Your task to perform on an android device: open app "Airtel Thanks" (install if not already installed) Image 0: 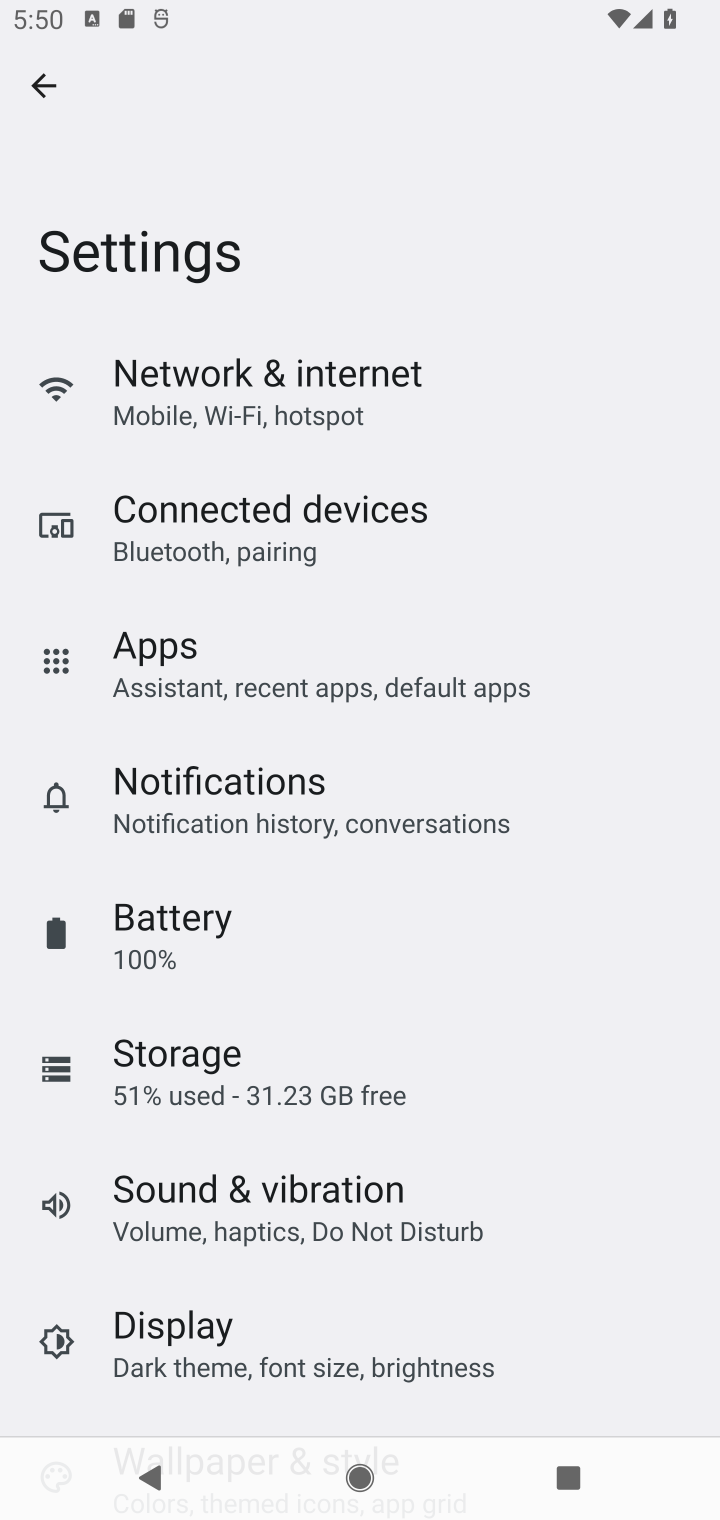
Step 0: press home button
Your task to perform on an android device: open app "Airtel Thanks" (install if not already installed) Image 1: 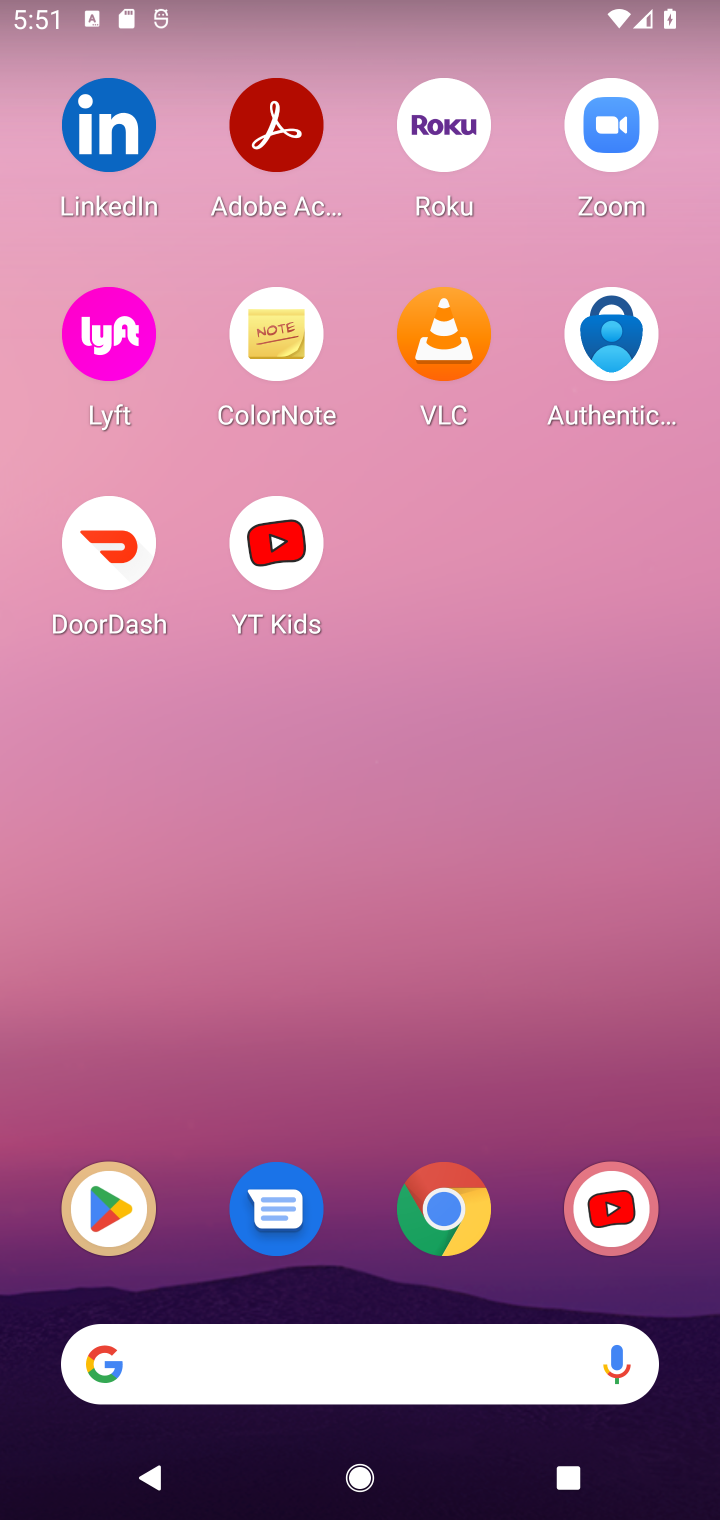
Step 1: click (98, 1209)
Your task to perform on an android device: open app "Airtel Thanks" (install if not already installed) Image 2: 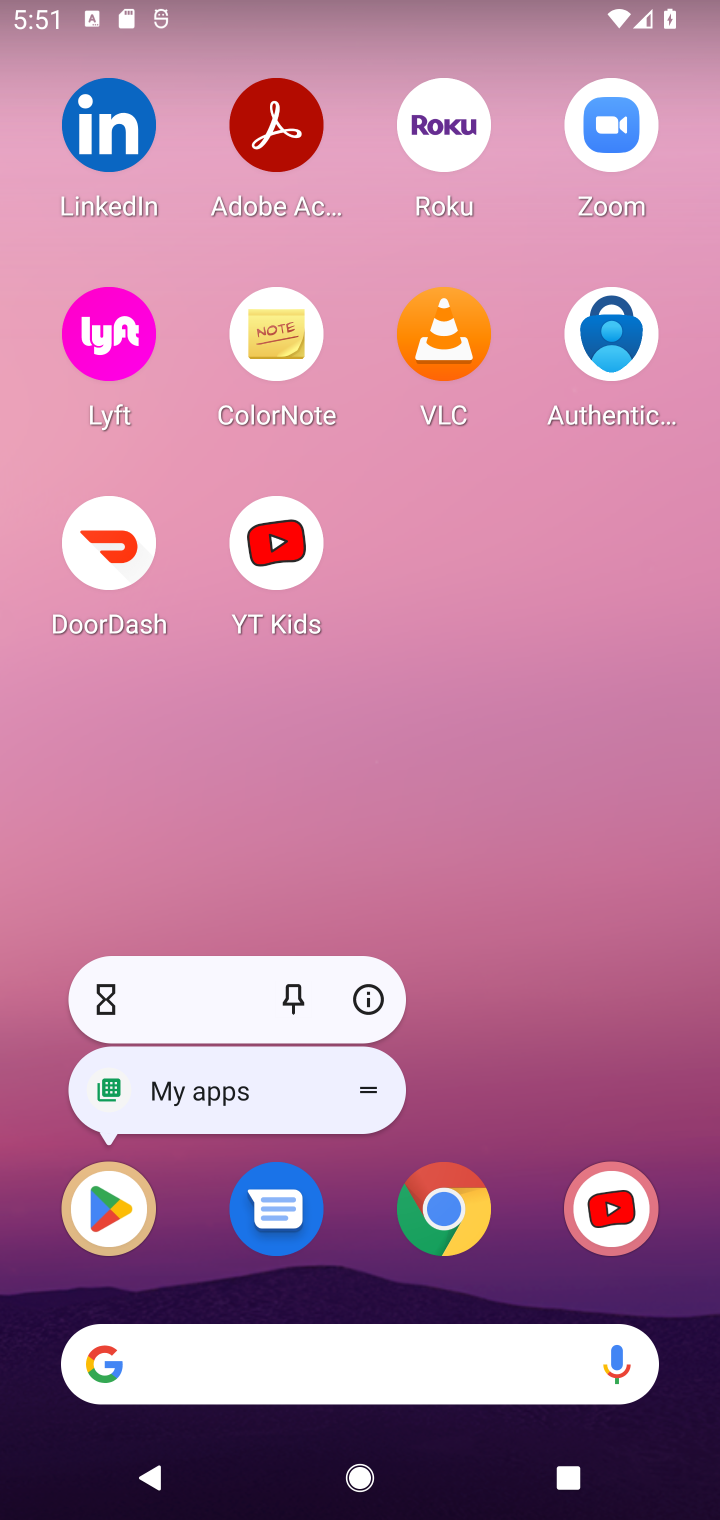
Step 2: click (98, 1209)
Your task to perform on an android device: open app "Airtel Thanks" (install if not already installed) Image 3: 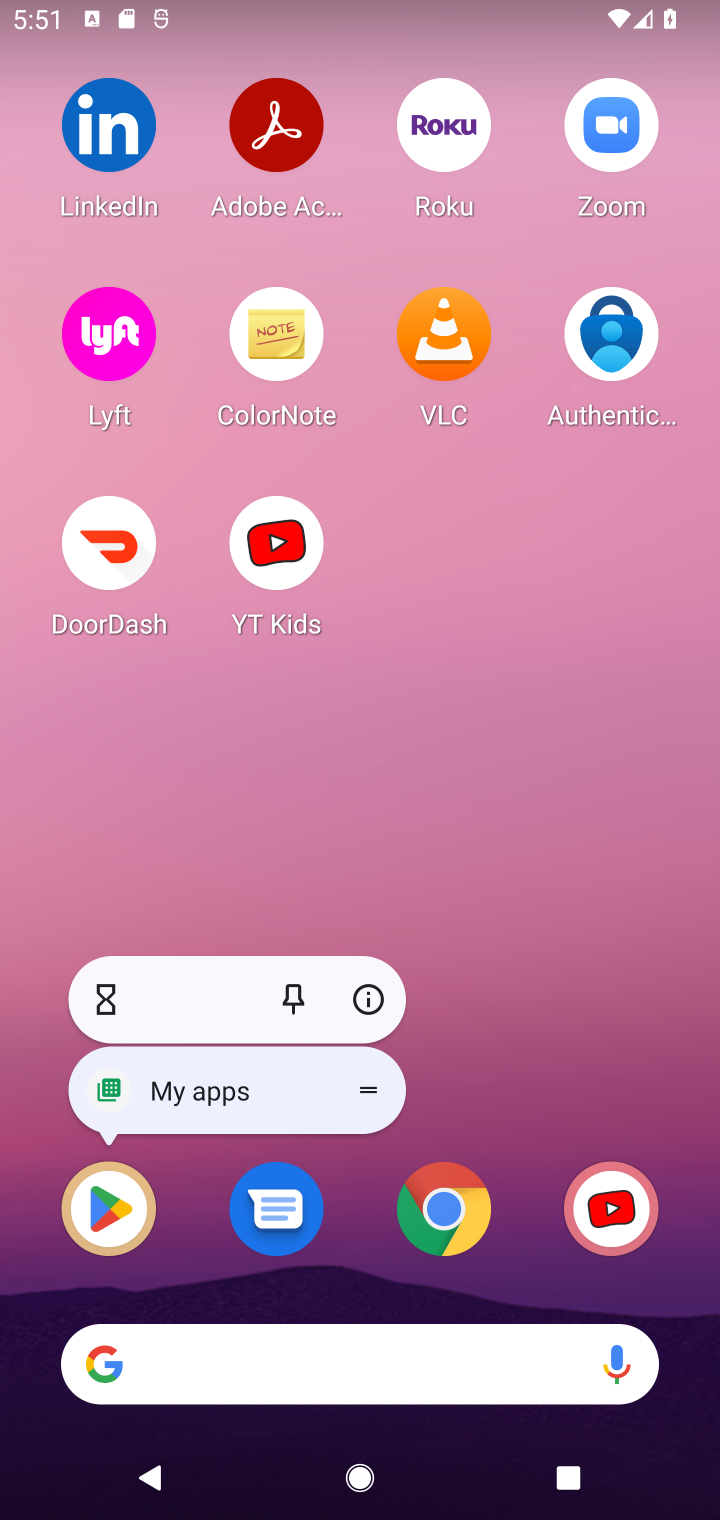
Step 3: click (111, 1212)
Your task to perform on an android device: open app "Airtel Thanks" (install if not already installed) Image 4: 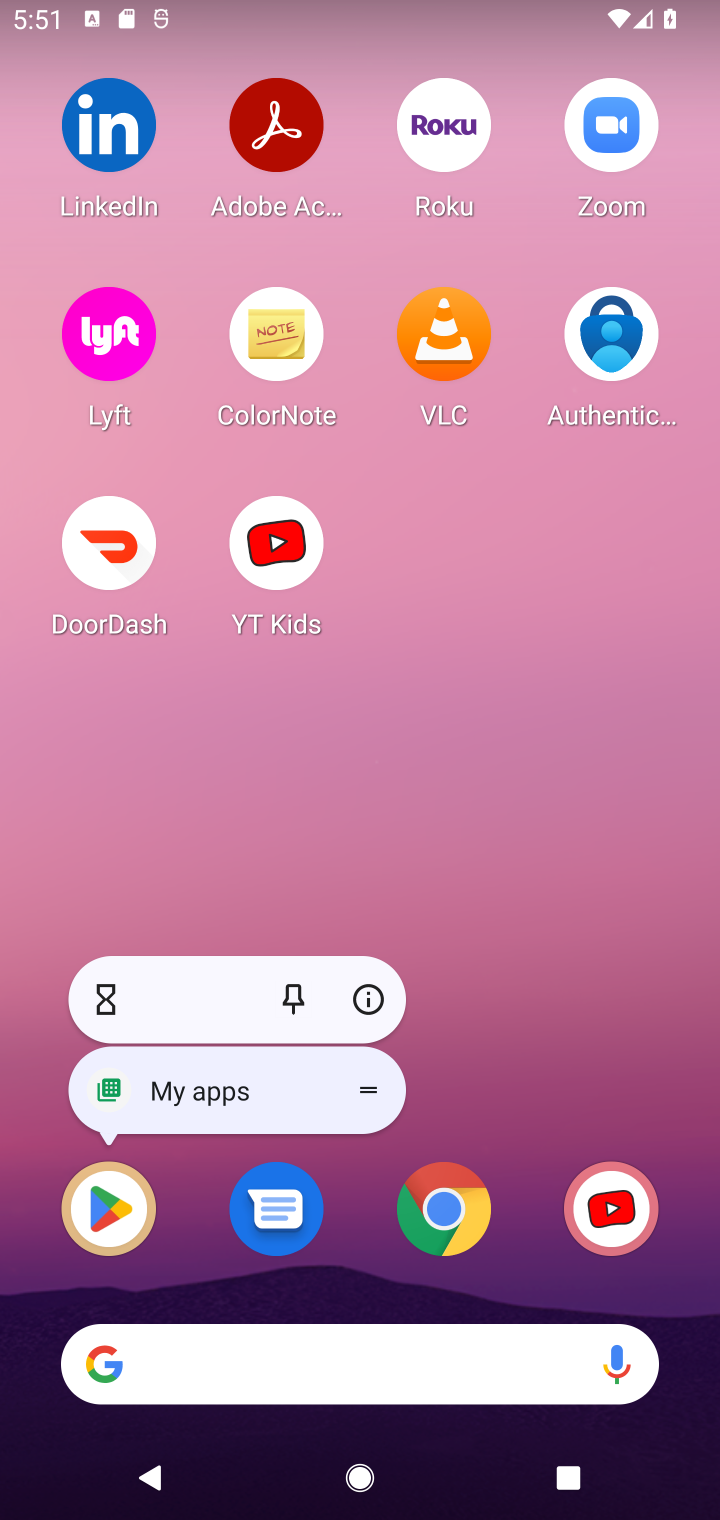
Step 4: click (111, 1212)
Your task to perform on an android device: open app "Airtel Thanks" (install if not already installed) Image 5: 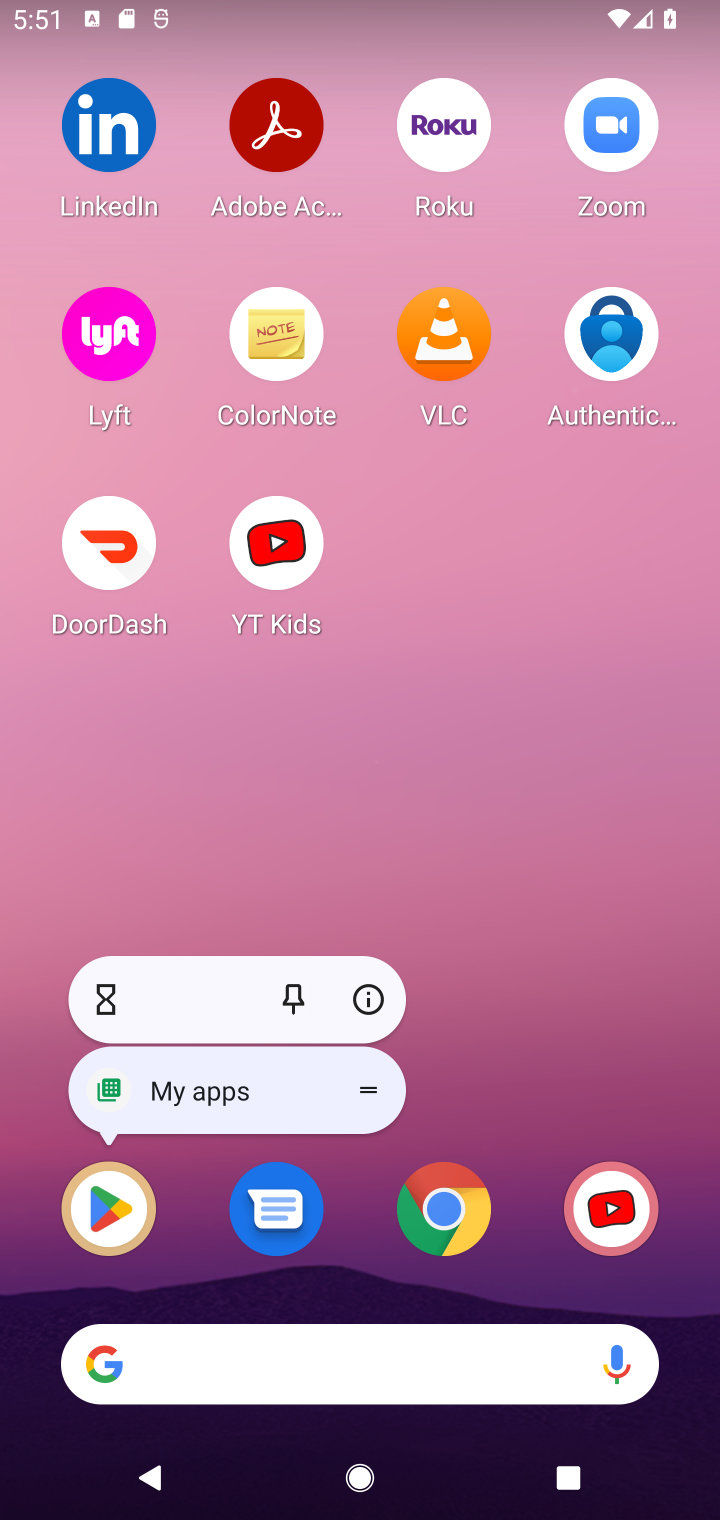
Step 5: click (111, 1212)
Your task to perform on an android device: open app "Airtel Thanks" (install if not already installed) Image 6: 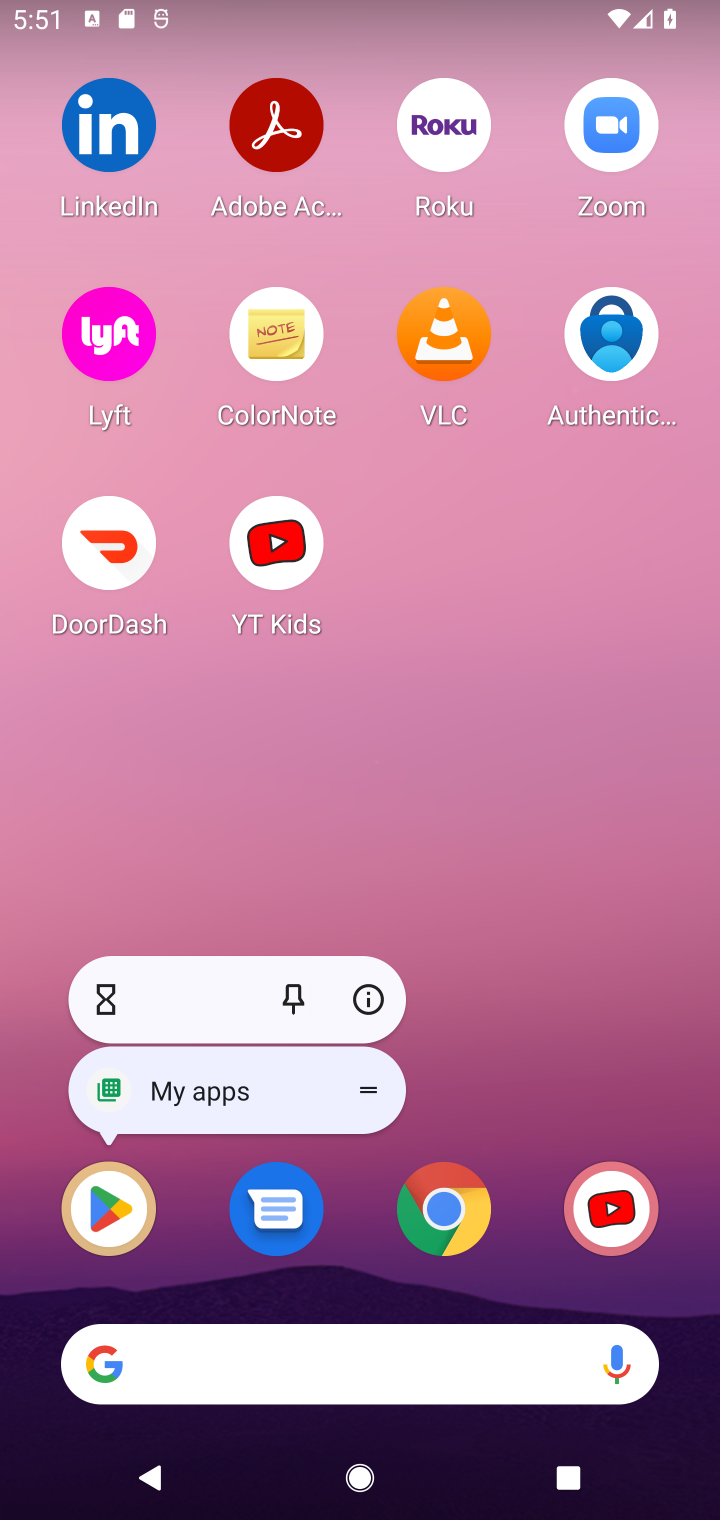
Step 6: click (105, 1231)
Your task to perform on an android device: open app "Airtel Thanks" (install if not already installed) Image 7: 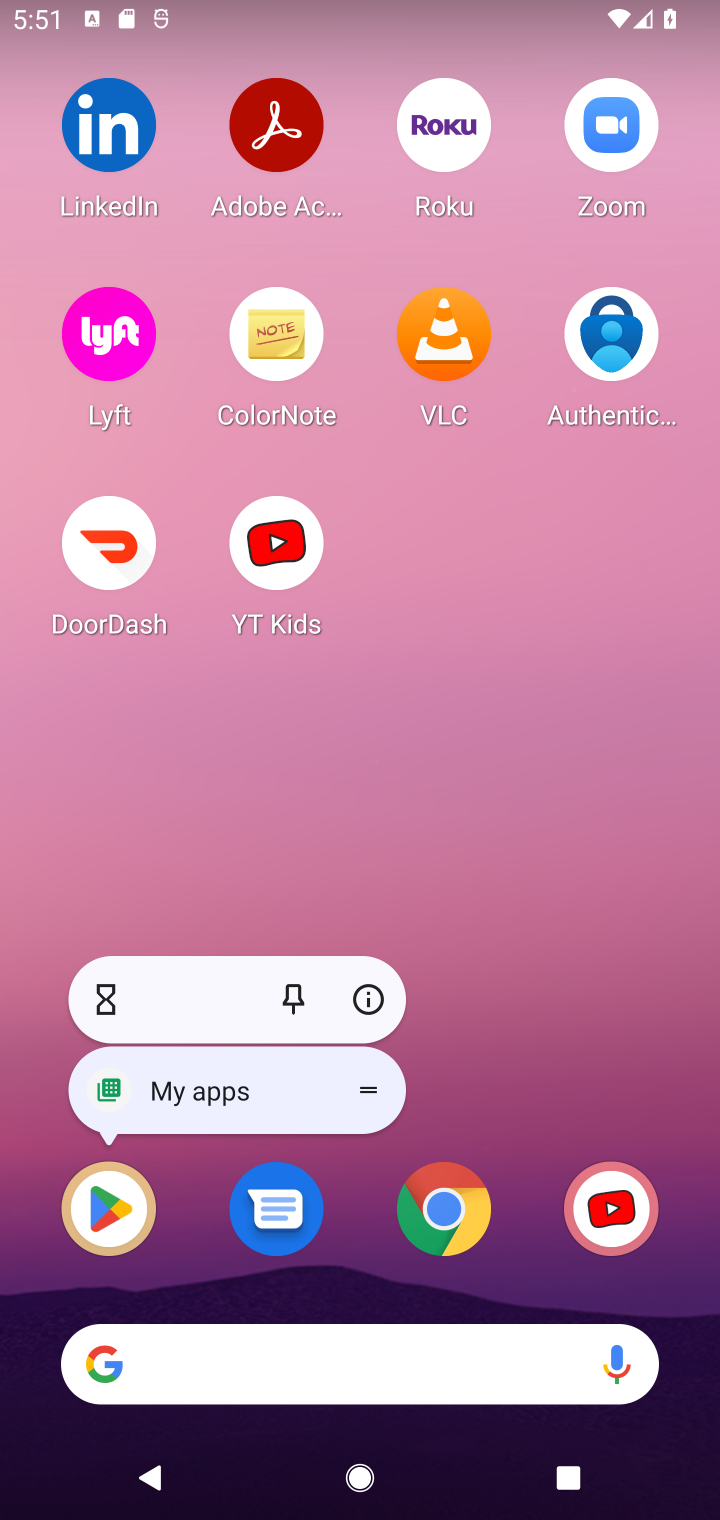
Step 7: click (105, 1231)
Your task to perform on an android device: open app "Airtel Thanks" (install if not already installed) Image 8: 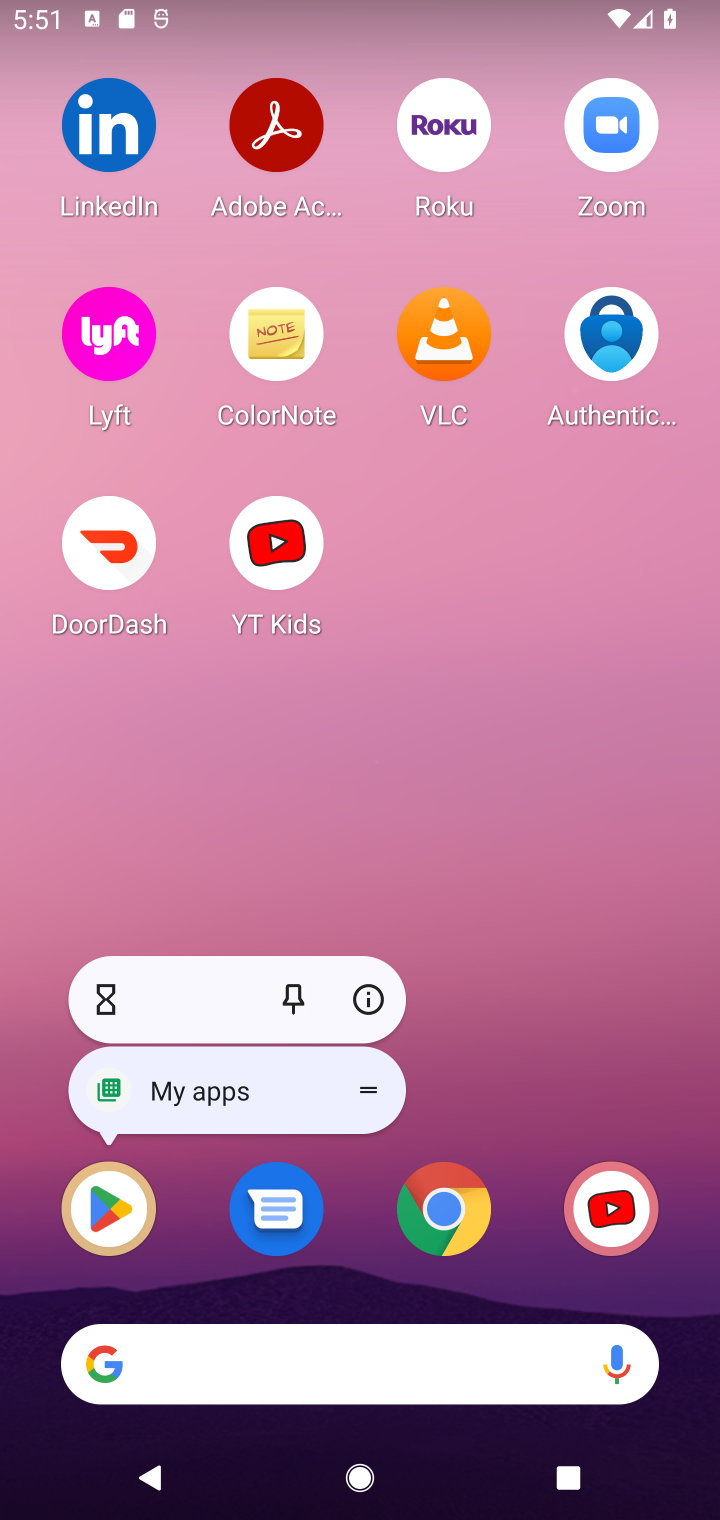
Step 8: click (105, 1231)
Your task to perform on an android device: open app "Airtel Thanks" (install if not already installed) Image 9: 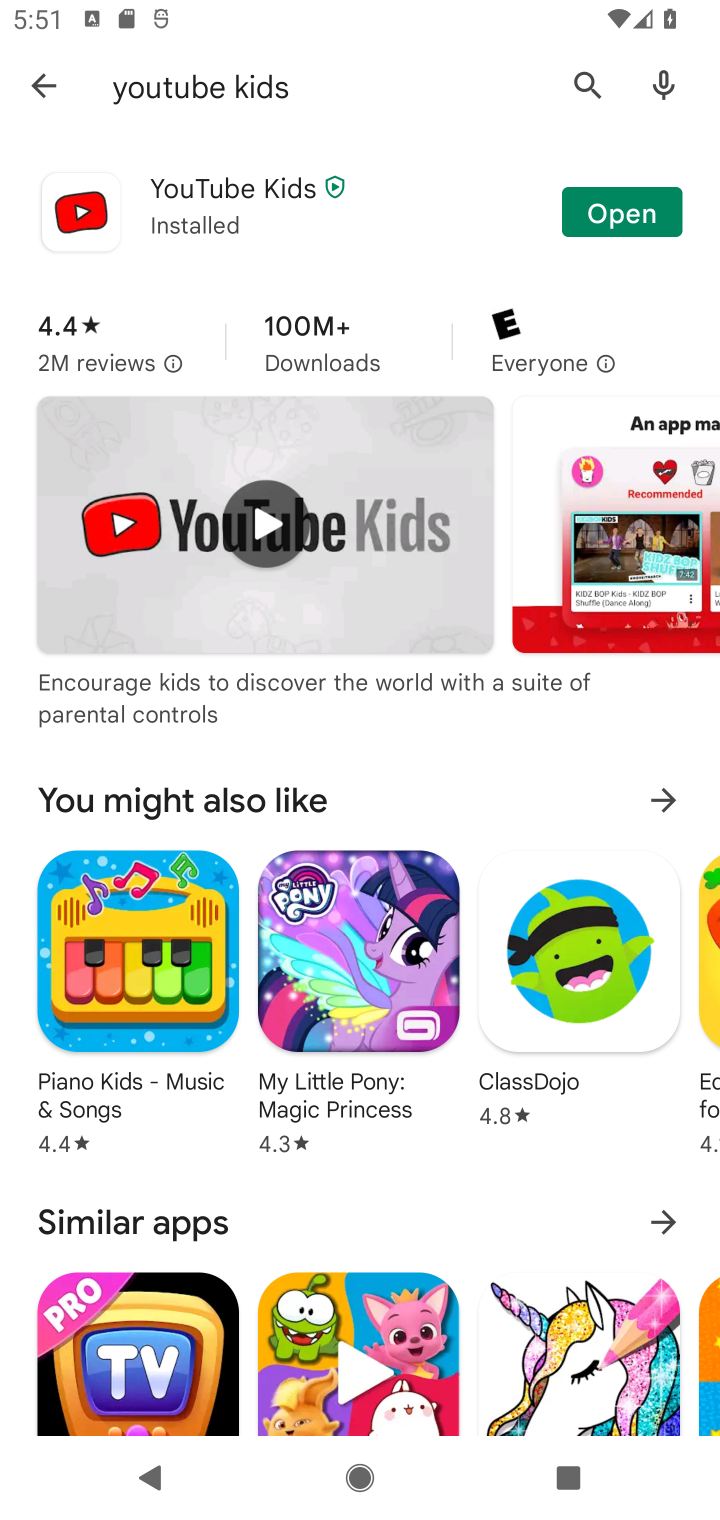
Step 9: click (598, 89)
Your task to perform on an android device: open app "Airtel Thanks" (install if not already installed) Image 10: 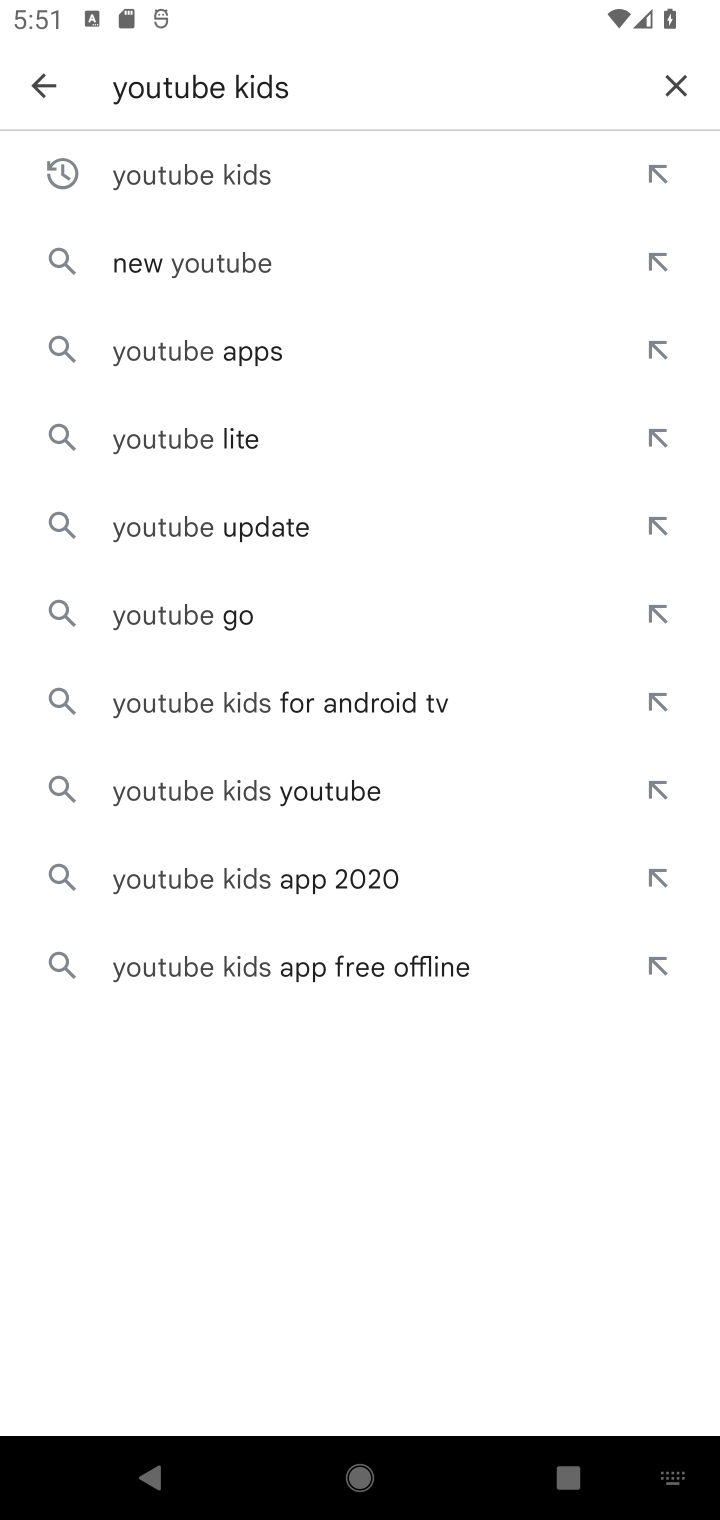
Step 10: click (678, 84)
Your task to perform on an android device: open app "Airtel Thanks" (install if not already installed) Image 11: 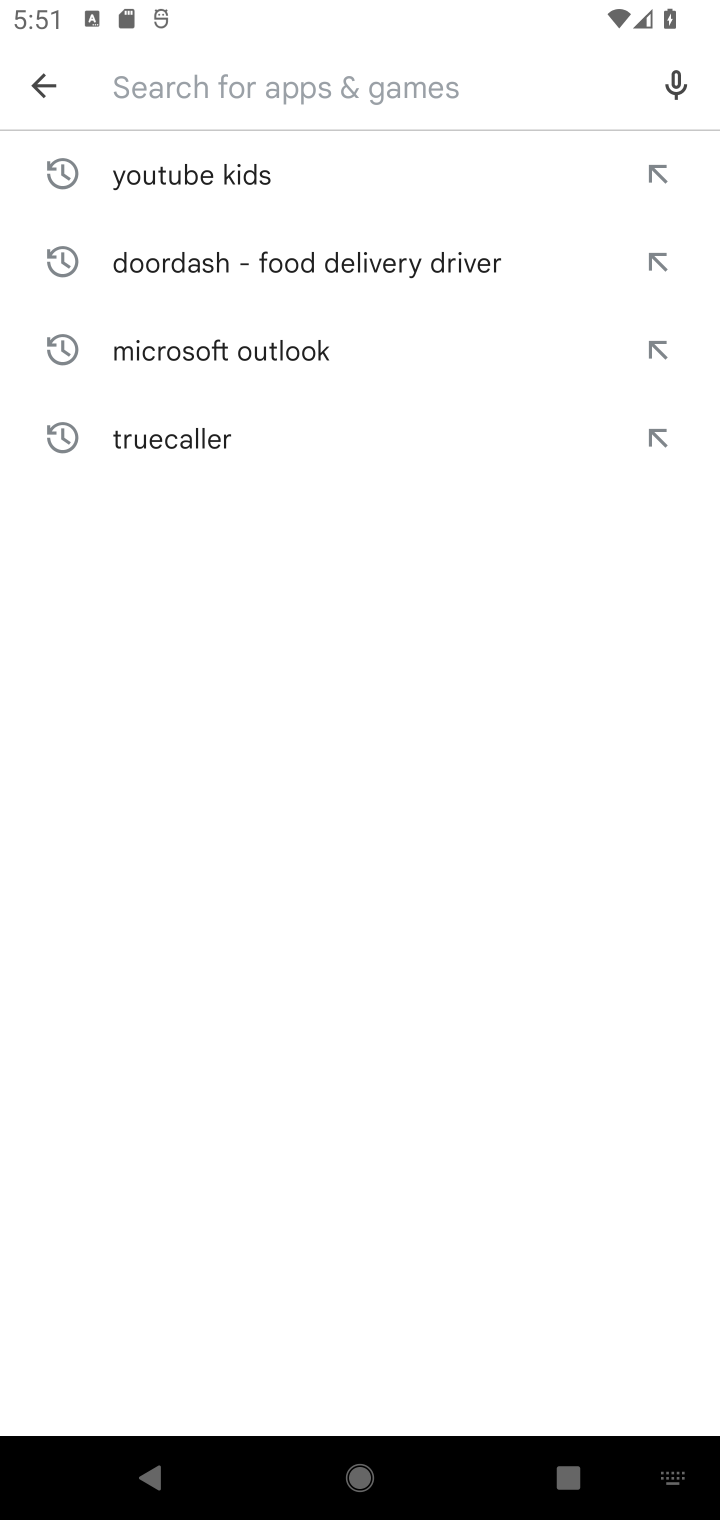
Step 11: type "Airtel Thanks"
Your task to perform on an android device: open app "Airtel Thanks" (install if not already installed) Image 12: 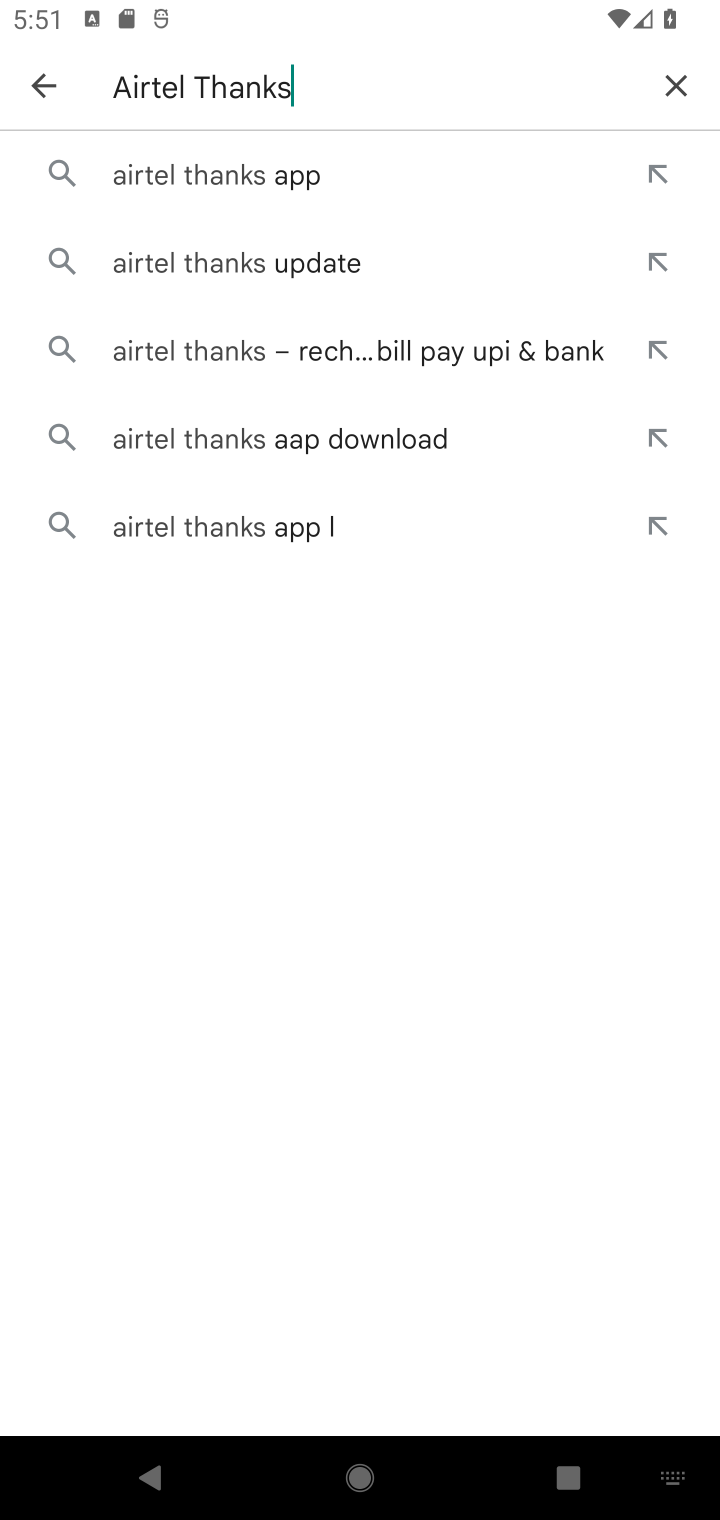
Step 12: click (206, 195)
Your task to perform on an android device: open app "Airtel Thanks" (install if not already installed) Image 13: 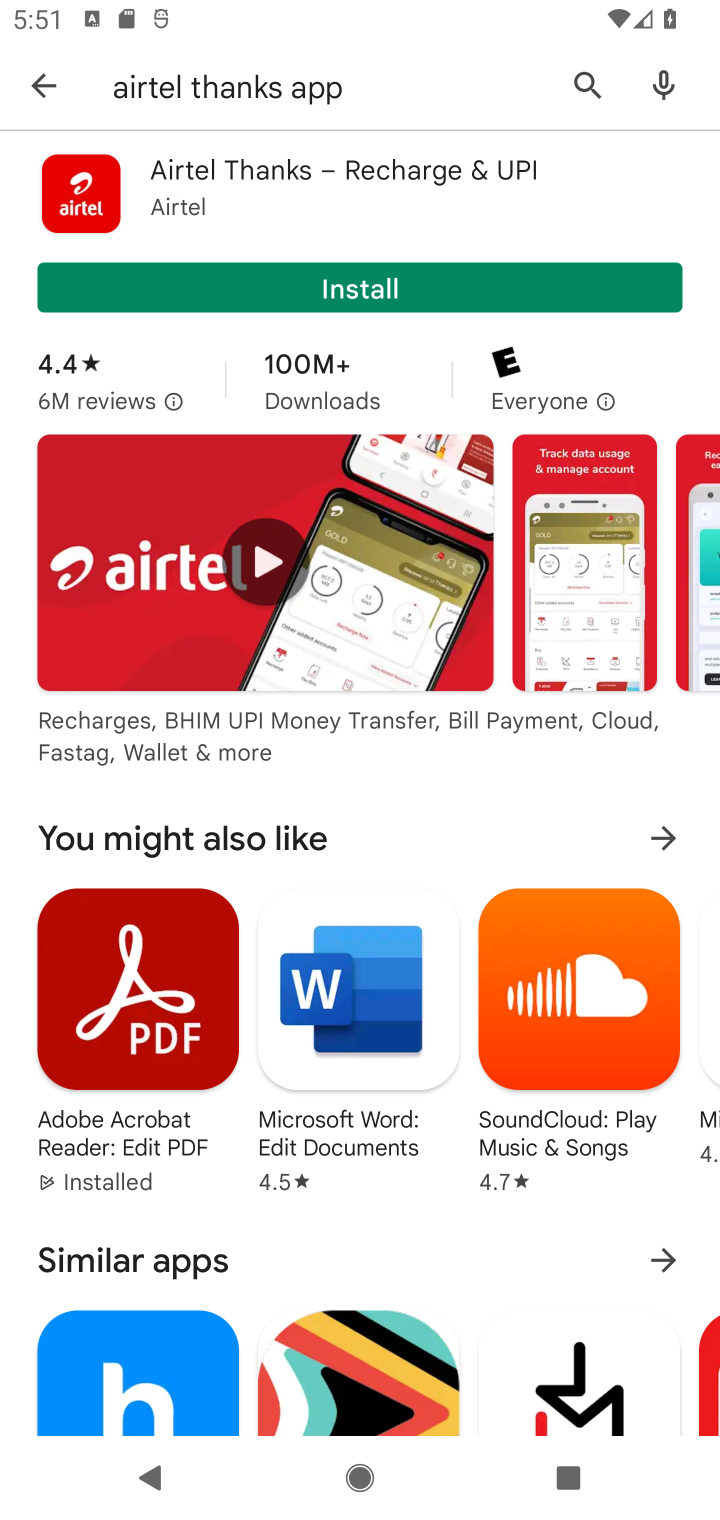
Step 13: click (313, 291)
Your task to perform on an android device: open app "Airtel Thanks" (install if not already installed) Image 14: 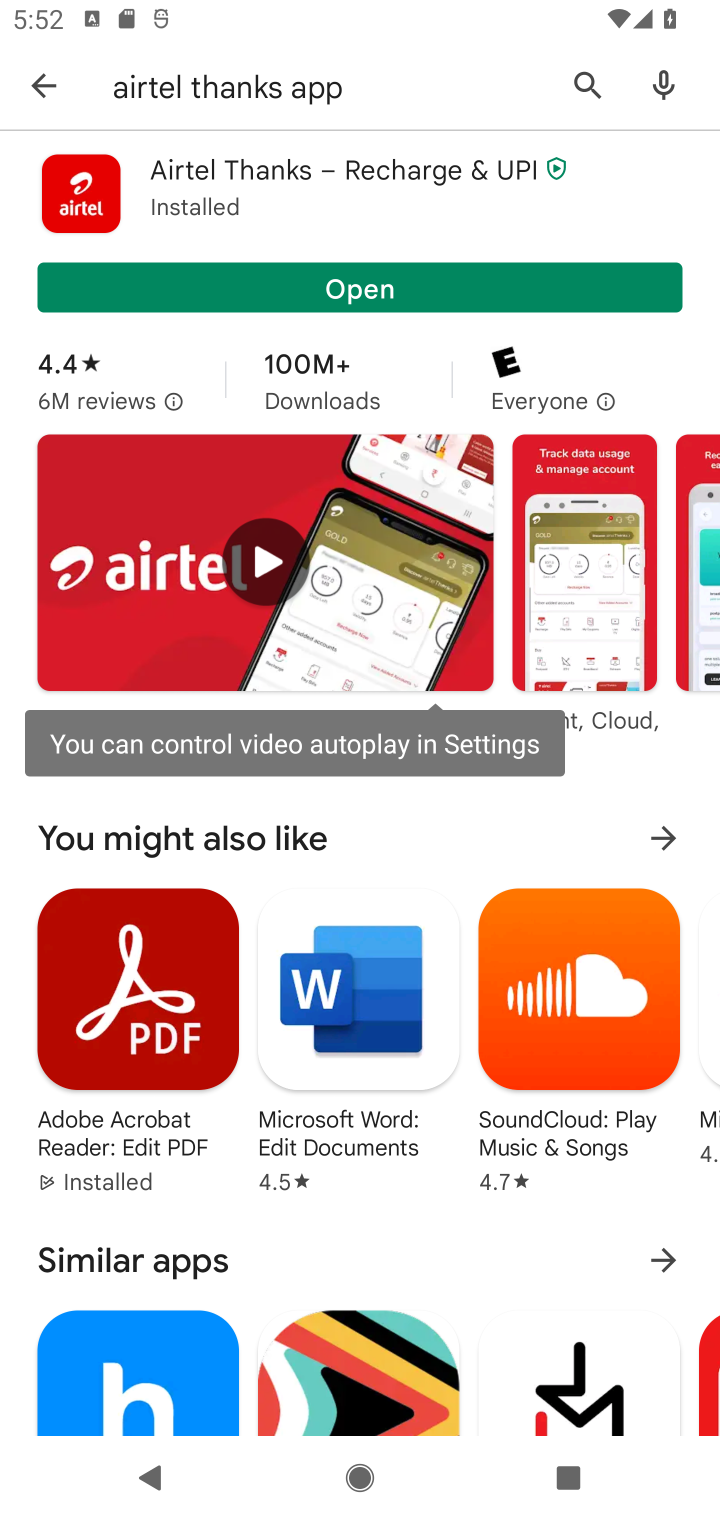
Step 14: click (303, 281)
Your task to perform on an android device: open app "Airtel Thanks" (install if not already installed) Image 15: 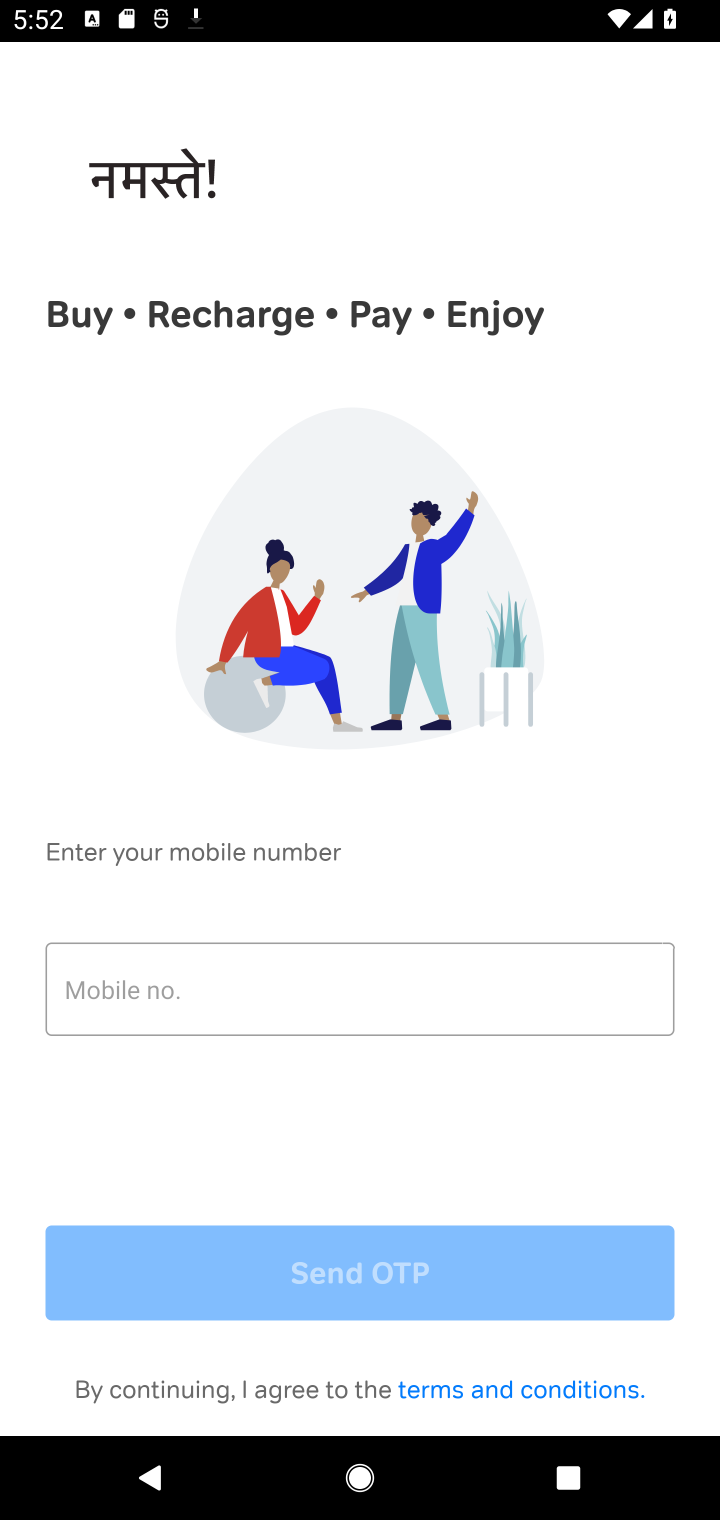
Step 15: task complete